Your task to perform on an android device: What's on my calendar today? Image 0: 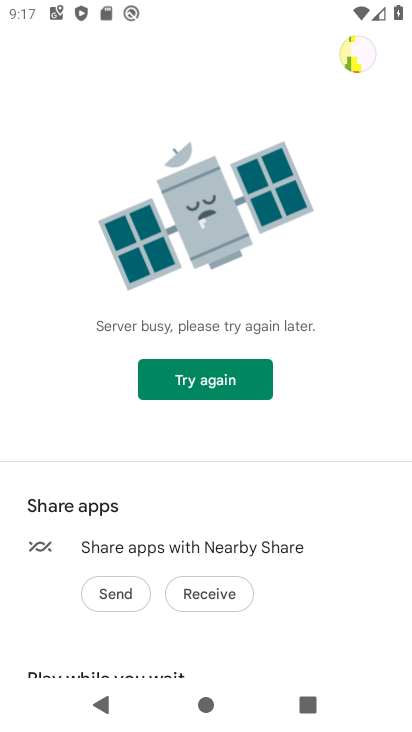
Step 0: press home button
Your task to perform on an android device: What's on my calendar today? Image 1: 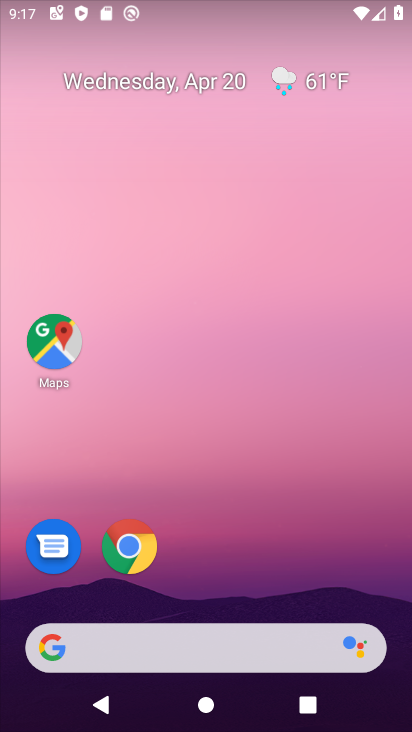
Step 1: drag from (135, 619) to (133, 247)
Your task to perform on an android device: What's on my calendar today? Image 2: 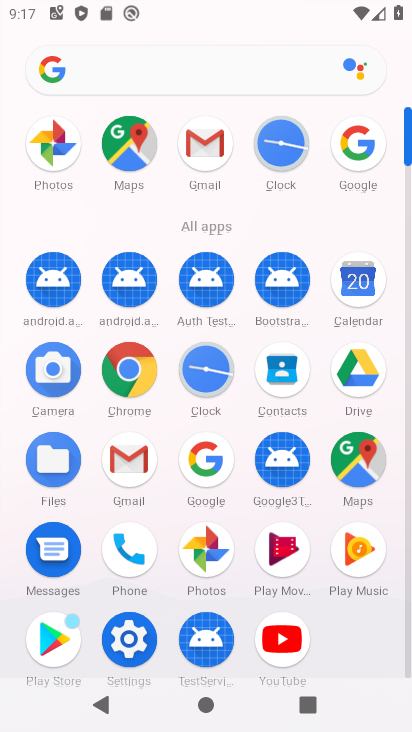
Step 2: click (361, 294)
Your task to perform on an android device: What's on my calendar today? Image 3: 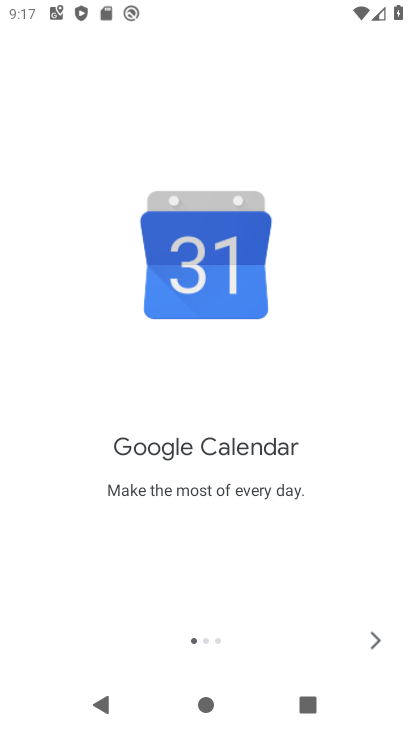
Step 3: click (373, 642)
Your task to perform on an android device: What's on my calendar today? Image 4: 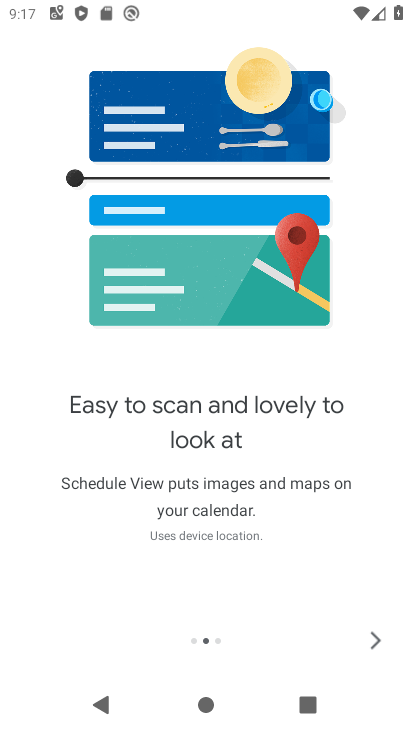
Step 4: click (373, 642)
Your task to perform on an android device: What's on my calendar today? Image 5: 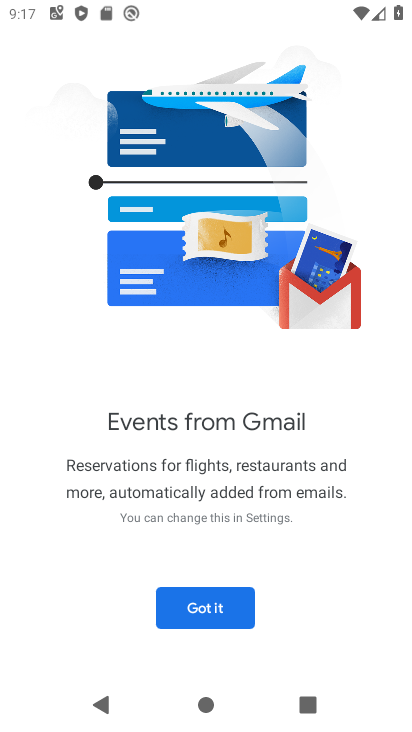
Step 5: click (231, 605)
Your task to perform on an android device: What's on my calendar today? Image 6: 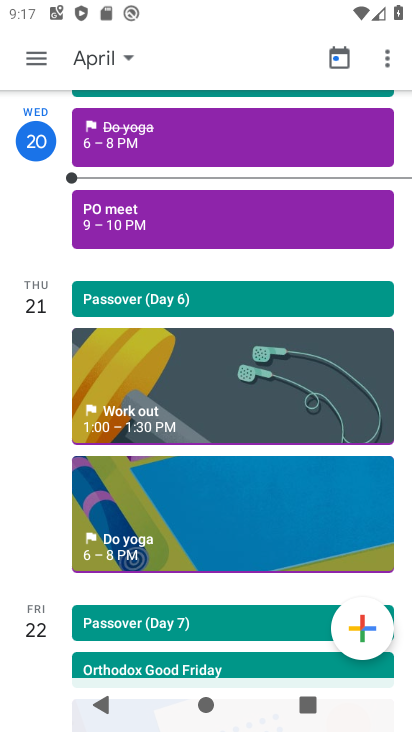
Step 6: task complete